Your task to perform on an android device: Is it going to rain tomorrow? Image 0: 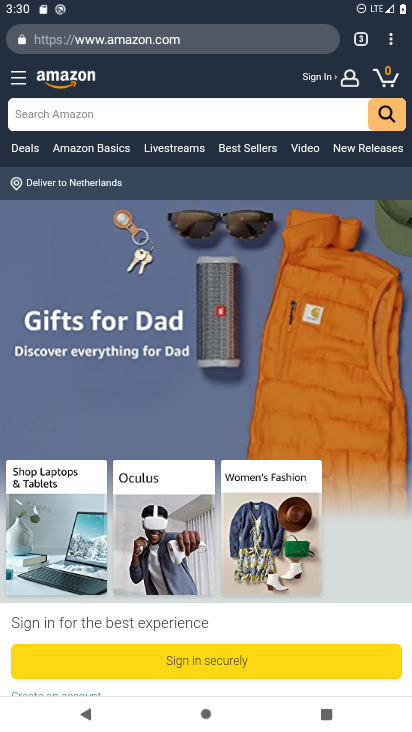
Step 0: press home button
Your task to perform on an android device: Is it going to rain tomorrow? Image 1: 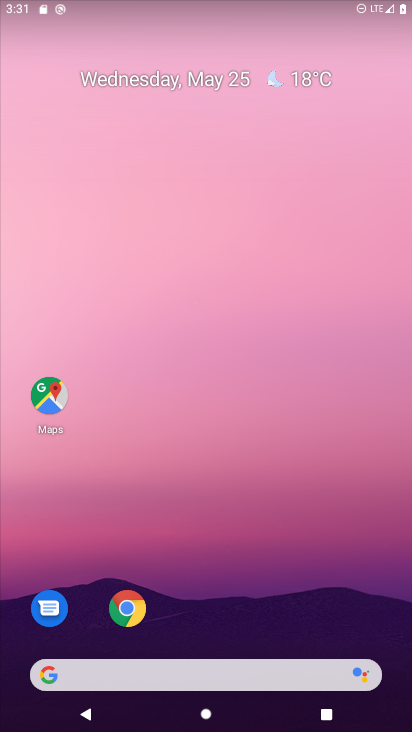
Step 1: click (304, 80)
Your task to perform on an android device: Is it going to rain tomorrow? Image 2: 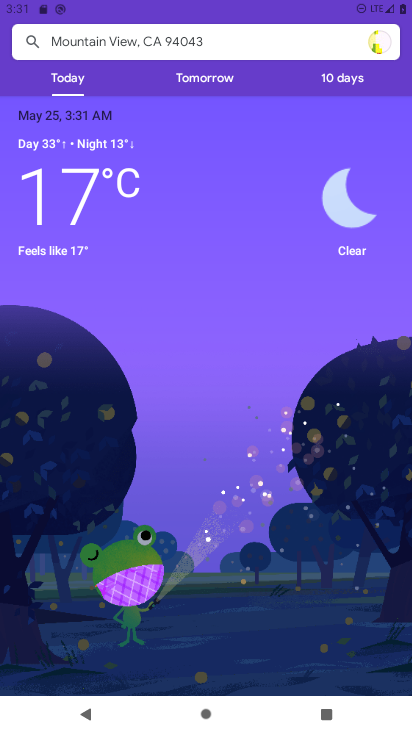
Step 2: click (201, 74)
Your task to perform on an android device: Is it going to rain tomorrow? Image 3: 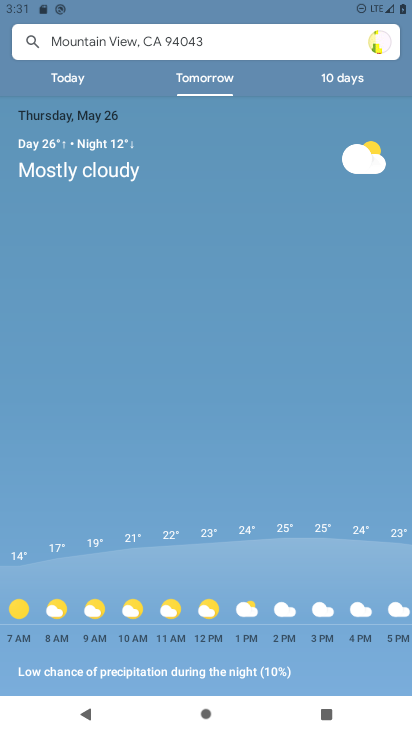
Step 3: task complete